Your task to perform on an android device: toggle data saver in the chrome app Image 0: 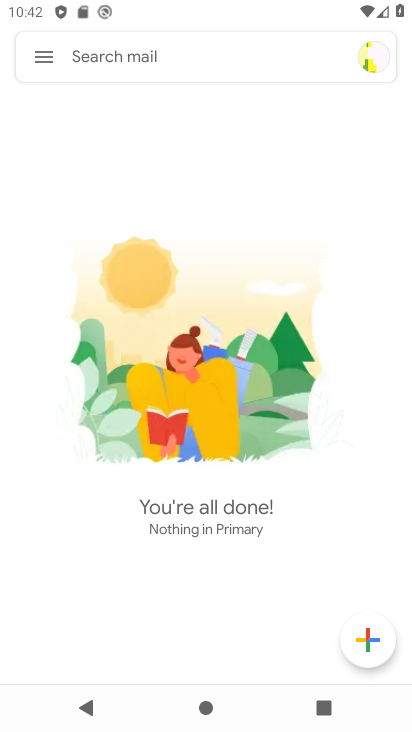
Step 0: press home button
Your task to perform on an android device: toggle data saver in the chrome app Image 1: 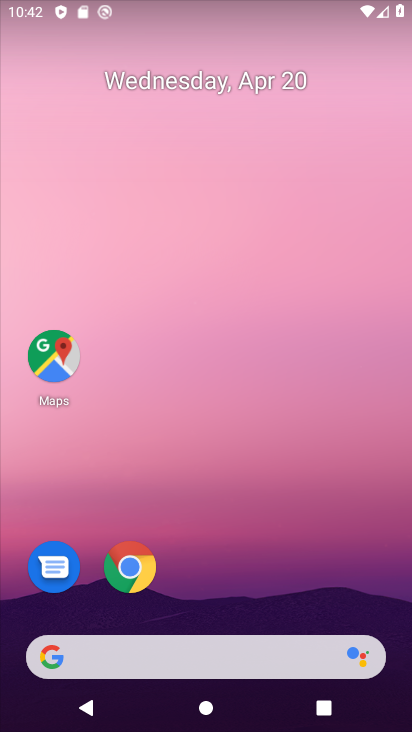
Step 1: drag from (212, 629) to (203, 4)
Your task to perform on an android device: toggle data saver in the chrome app Image 2: 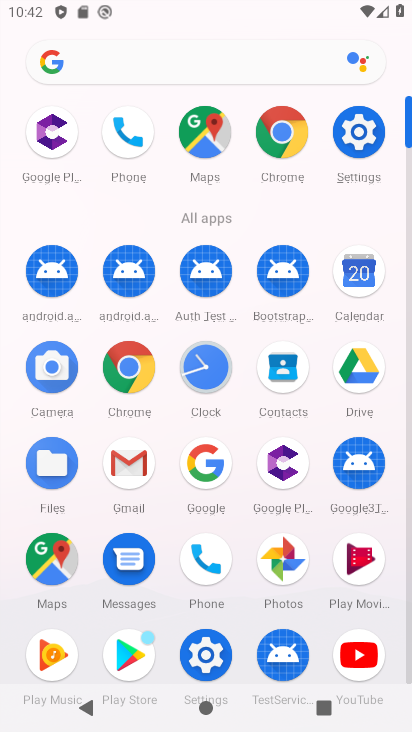
Step 2: click (125, 367)
Your task to perform on an android device: toggle data saver in the chrome app Image 3: 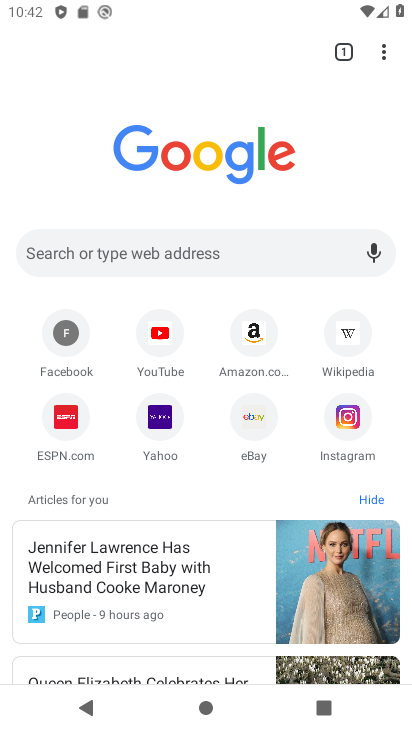
Step 3: drag from (384, 55) to (207, 429)
Your task to perform on an android device: toggle data saver in the chrome app Image 4: 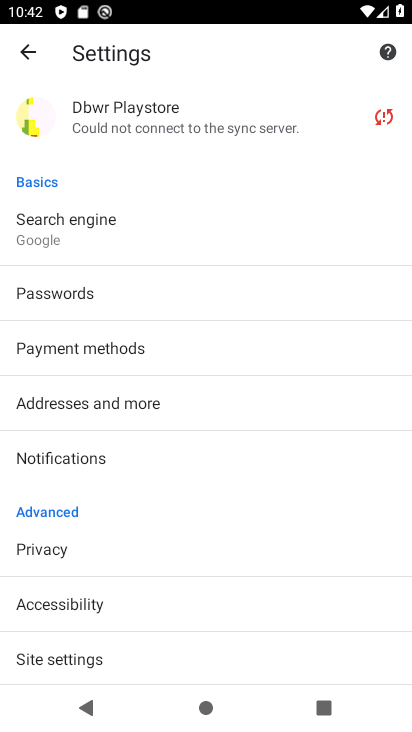
Step 4: drag from (131, 495) to (116, 359)
Your task to perform on an android device: toggle data saver in the chrome app Image 5: 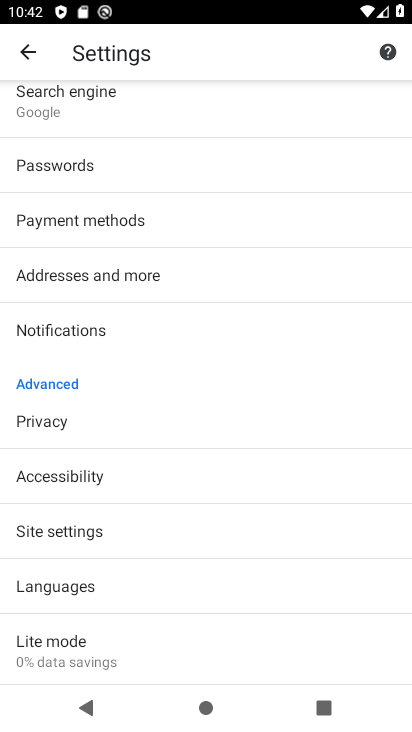
Step 5: click (83, 542)
Your task to perform on an android device: toggle data saver in the chrome app Image 6: 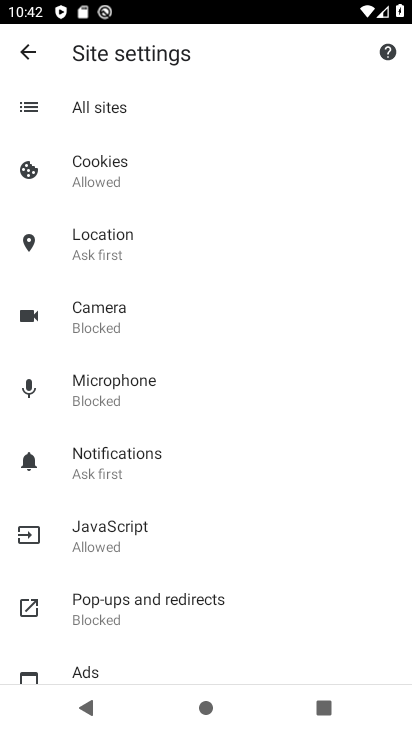
Step 6: click (31, 60)
Your task to perform on an android device: toggle data saver in the chrome app Image 7: 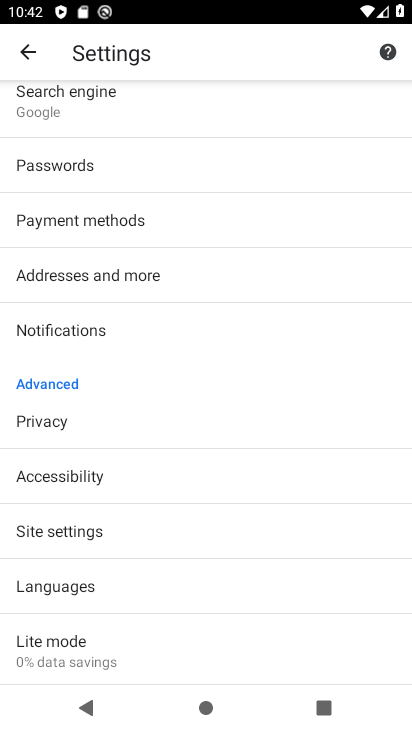
Step 7: click (64, 628)
Your task to perform on an android device: toggle data saver in the chrome app Image 8: 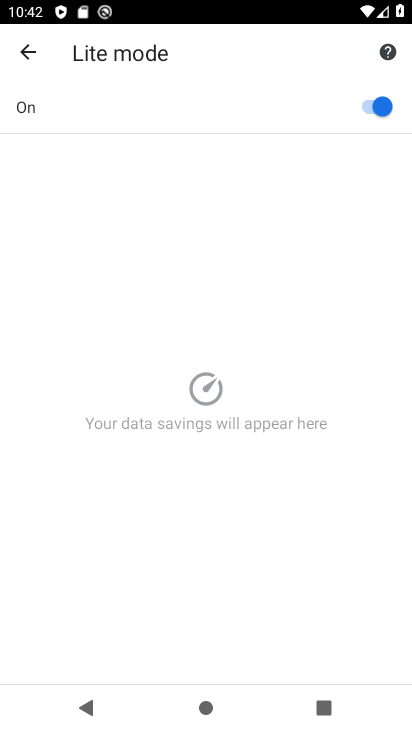
Step 8: click (371, 99)
Your task to perform on an android device: toggle data saver in the chrome app Image 9: 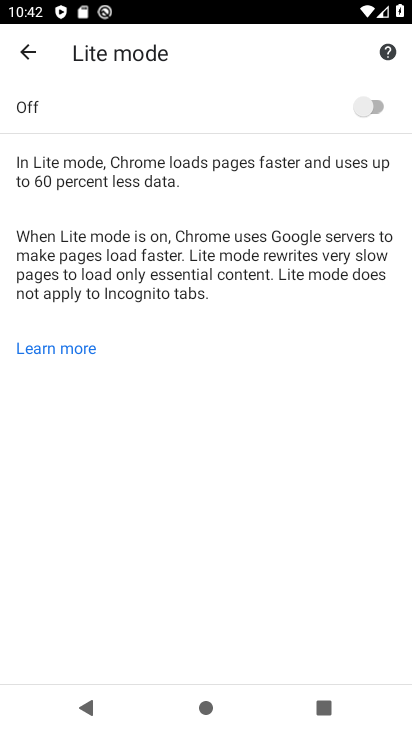
Step 9: task complete